Your task to perform on an android device: show emergency info Image 0: 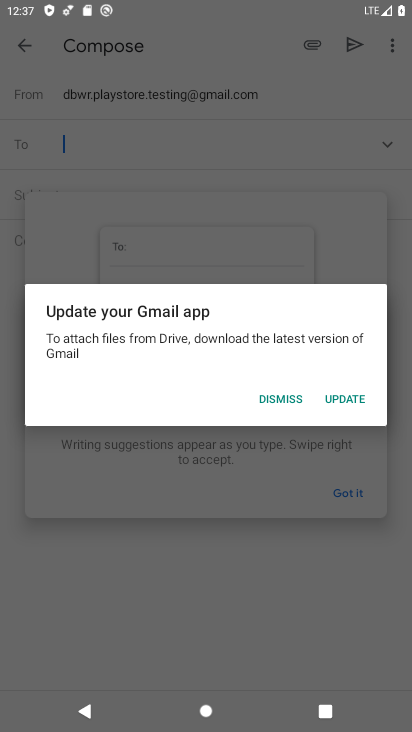
Step 0: press home button
Your task to perform on an android device: show emergency info Image 1: 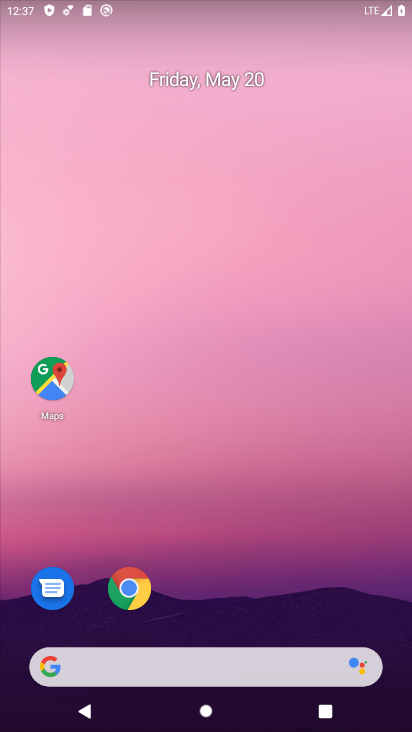
Step 1: drag from (373, 626) to (331, 21)
Your task to perform on an android device: show emergency info Image 2: 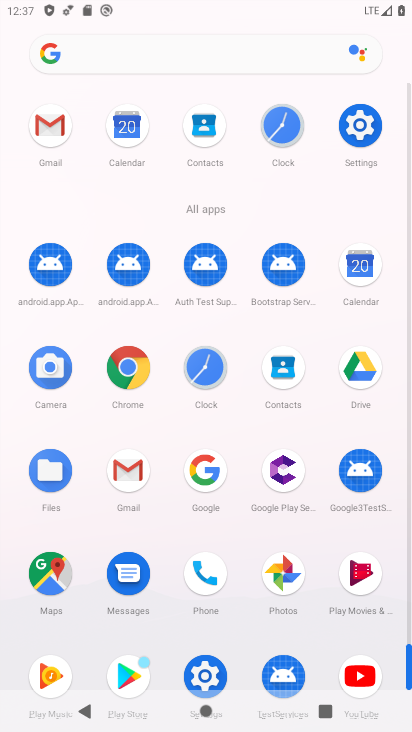
Step 2: click (202, 675)
Your task to perform on an android device: show emergency info Image 3: 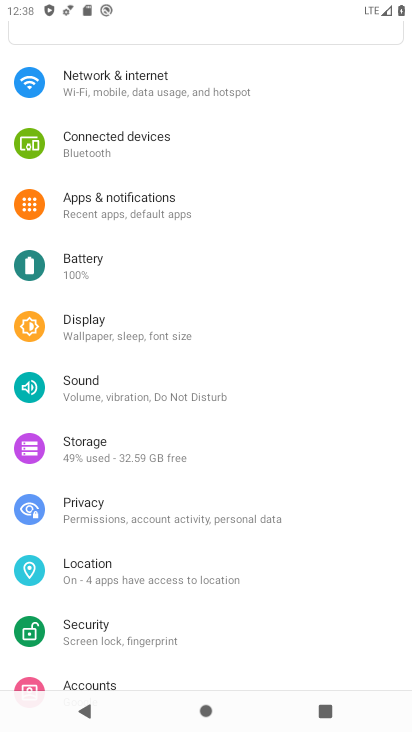
Step 3: drag from (324, 552) to (262, 112)
Your task to perform on an android device: show emergency info Image 4: 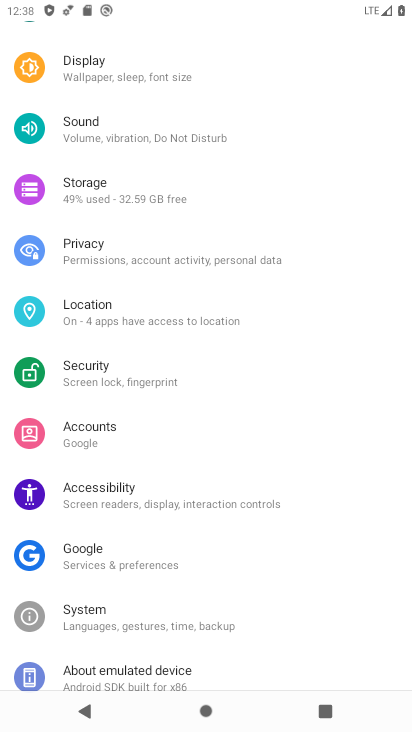
Step 4: drag from (286, 571) to (320, 194)
Your task to perform on an android device: show emergency info Image 5: 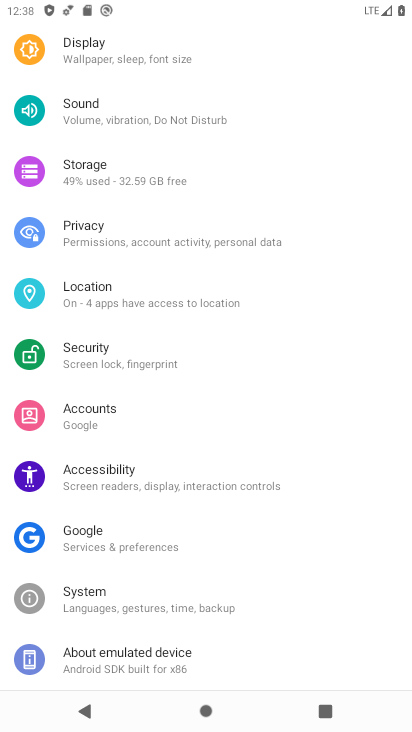
Step 5: click (100, 650)
Your task to perform on an android device: show emergency info Image 6: 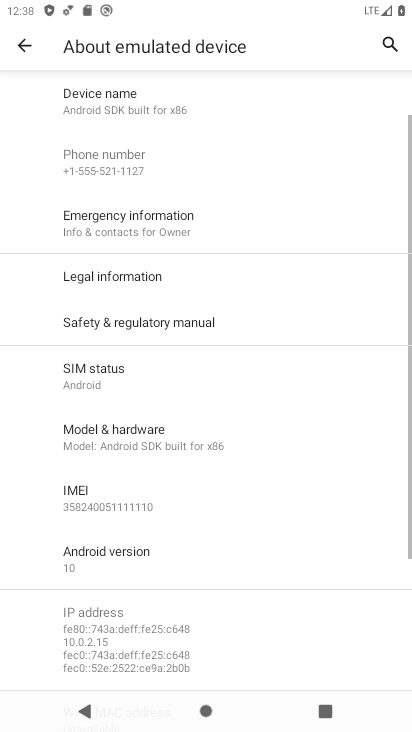
Step 6: drag from (258, 512) to (259, 471)
Your task to perform on an android device: show emergency info Image 7: 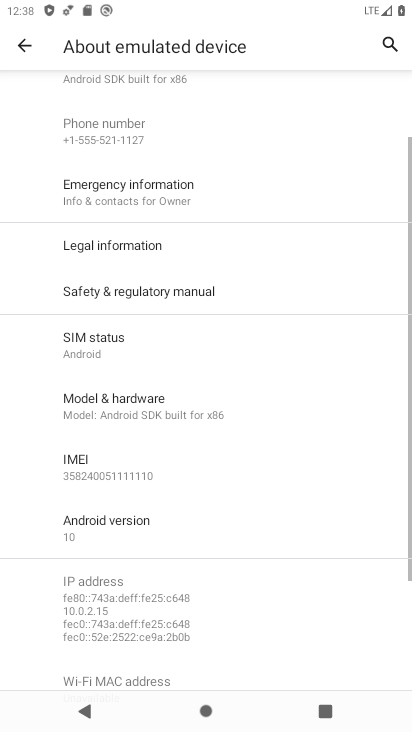
Step 7: click (109, 185)
Your task to perform on an android device: show emergency info Image 8: 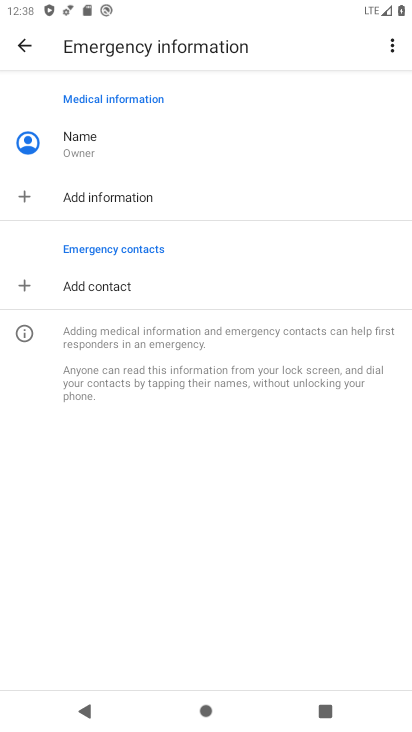
Step 8: task complete